Your task to perform on an android device: Open eBay Image 0: 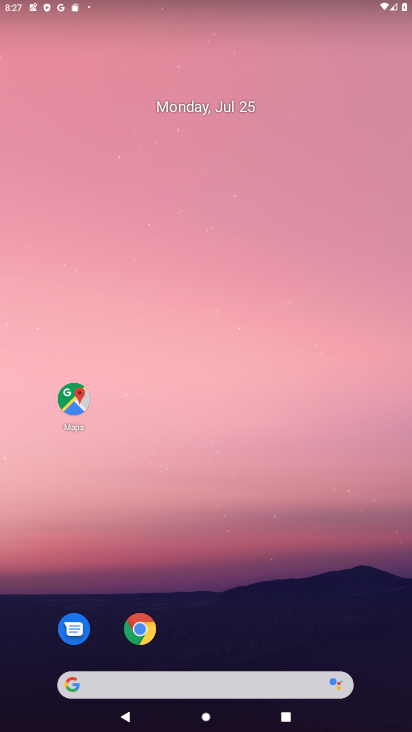
Step 0: click (150, 634)
Your task to perform on an android device: Open eBay Image 1: 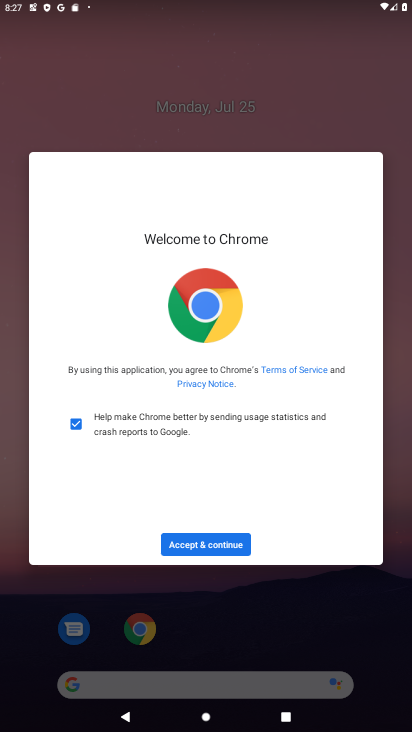
Step 1: click (216, 538)
Your task to perform on an android device: Open eBay Image 2: 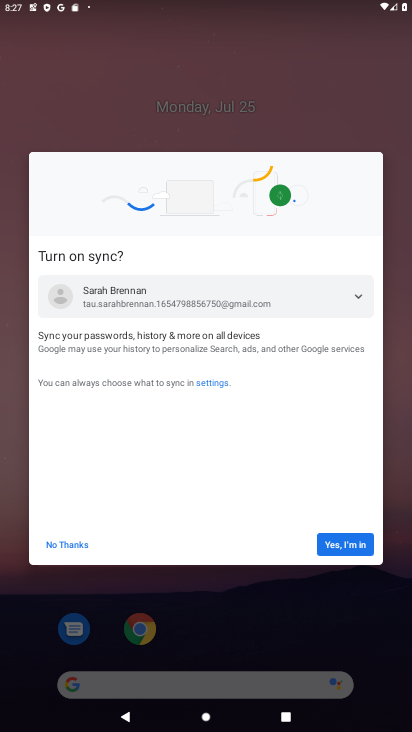
Step 2: click (60, 548)
Your task to perform on an android device: Open eBay Image 3: 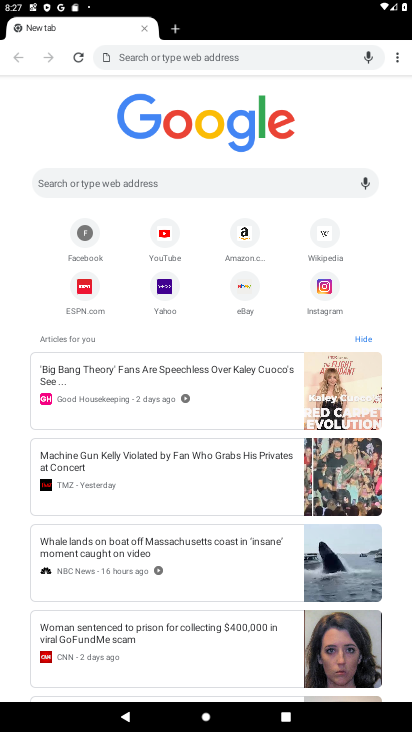
Step 3: click (246, 295)
Your task to perform on an android device: Open eBay Image 4: 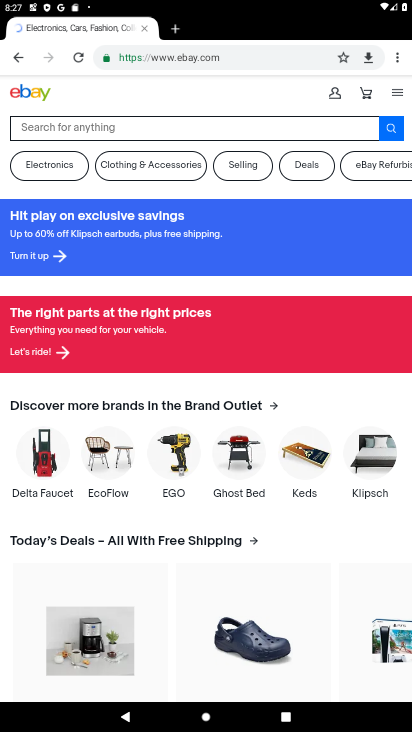
Step 4: task complete